Your task to perform on an android device: add a label to a message in the gmail app Image 0: 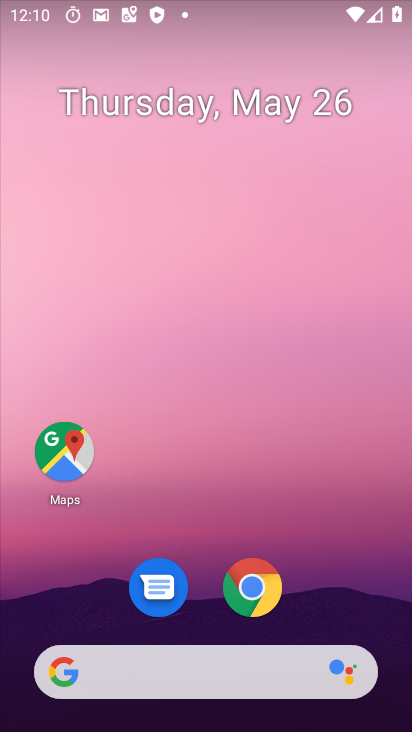
Step 0: drag from (265, 682) to (228, 79)
Your task to perform on an android device: add a label to a message in the gmail app Image 1: 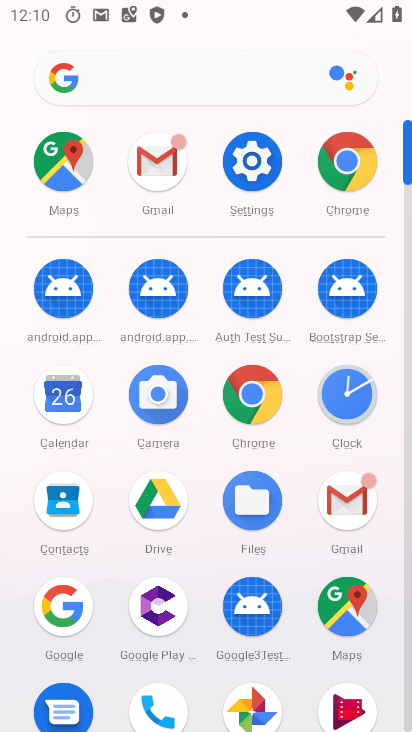
Step 1: click (156, 179)
Your task to perform on an android device: add a label to a message in the gmail app Image 2: 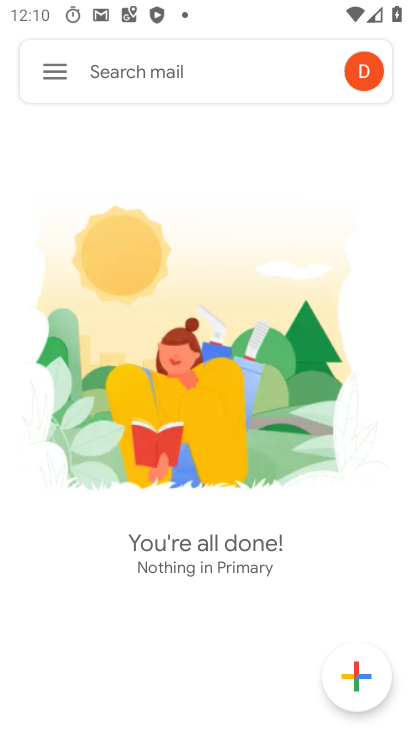
Step 2: click (45, 62)
Your task to perform on an android device: add a label to a message in the gmail app Image 3: 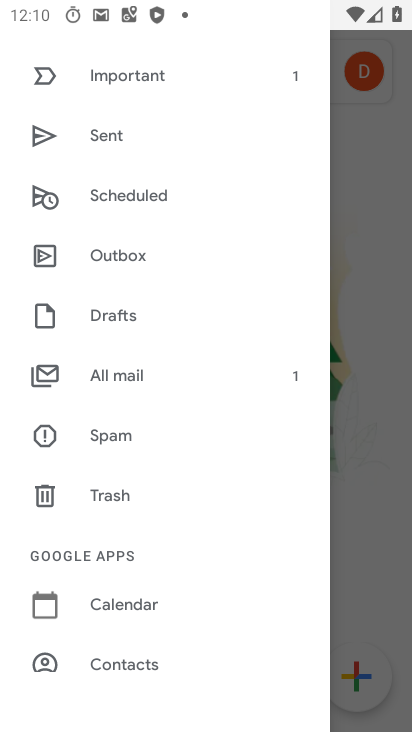
Step 3: drag from (118, 603) to (106, 430)
Your task to perform on an android device: add a label to a message in the gmail app Image 4: 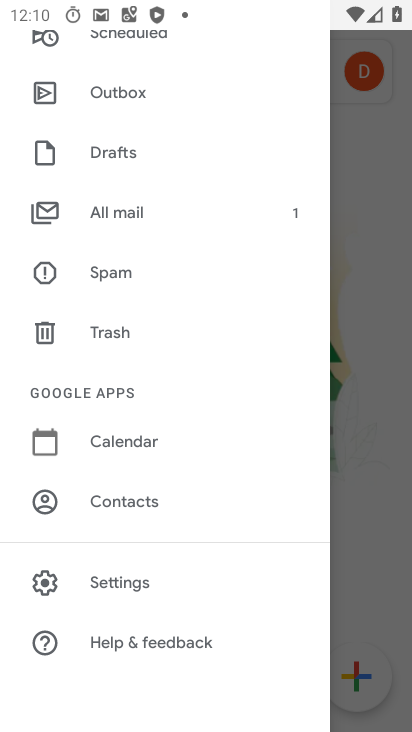
Step 4: click (130, 587)
Your task to perform on an android device: add a label to a message in the gmail app Image 5: 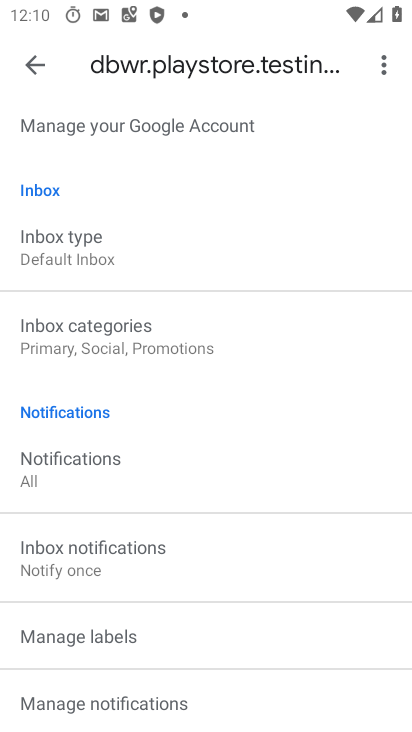
Step 5: click (138, 639)
Your task to perform on an android device: add a label to a message in the gmail app Image 6: 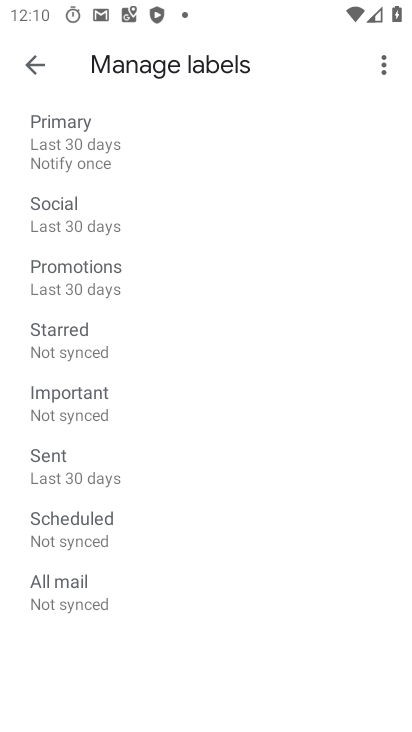
Step 6: click (78, 377)
Your task to perform on an android device: add a label to a message in the gmail app Image 7: 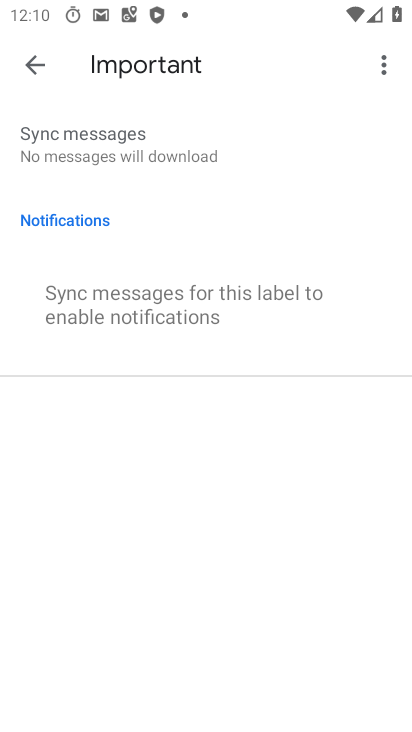
Step 7: task complete